Your task to perform on an android device: Go to sound settings Image 0: 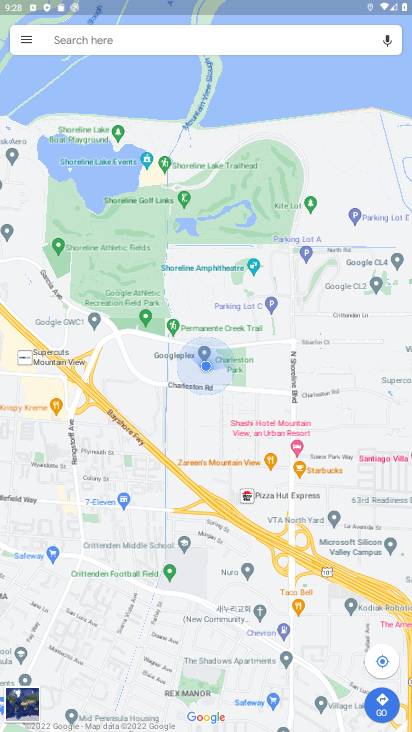
Step 0: press home button
Your task to perform on an android device: Go to sound settings Image 1: 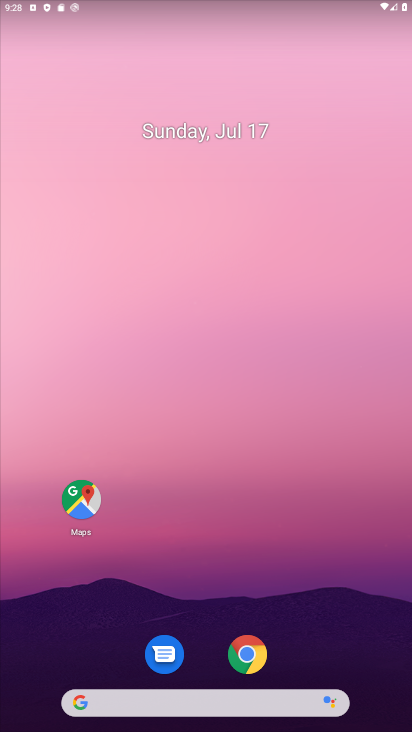
Step 1: drag from (201, 641) to (210, 174)
Your task to perform on an android device: Go to sound settings Image 2: 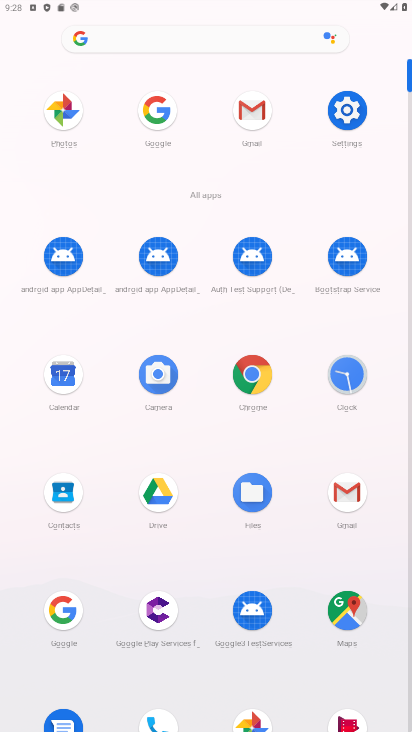
Step 2: click (332, 109)
Your task to perform on an android device: Go to sound settings Image 3: 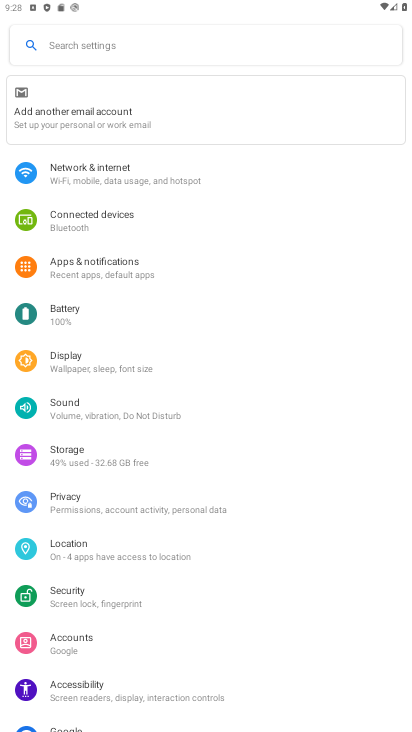
Step 3: click (96, 408)
Your task to perform on an android device: Go to sound settings Image 4: 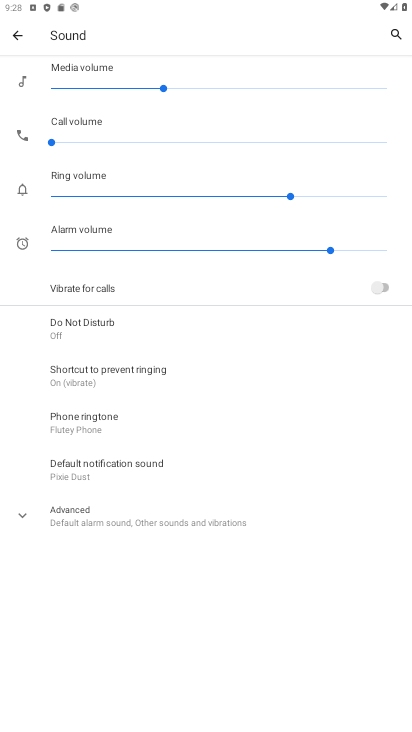
Step 4: task complete